Your task to perform on an android device: Toggle the flashlight Image 0: 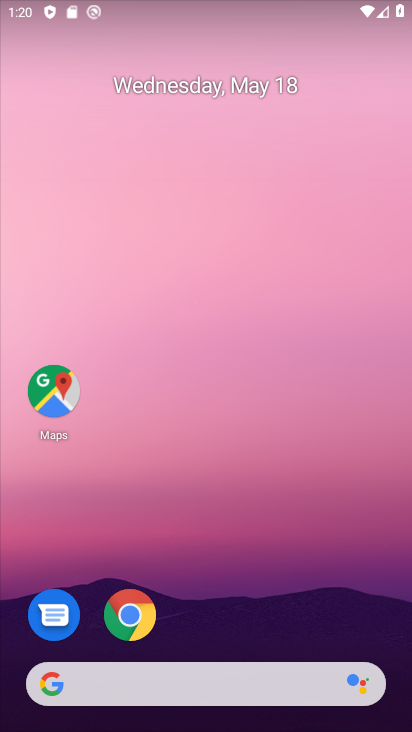
Step 0: drag from (128, 245) to (149, 450)
Your task to perform on an android device: Toggle the flashlight Image 1: 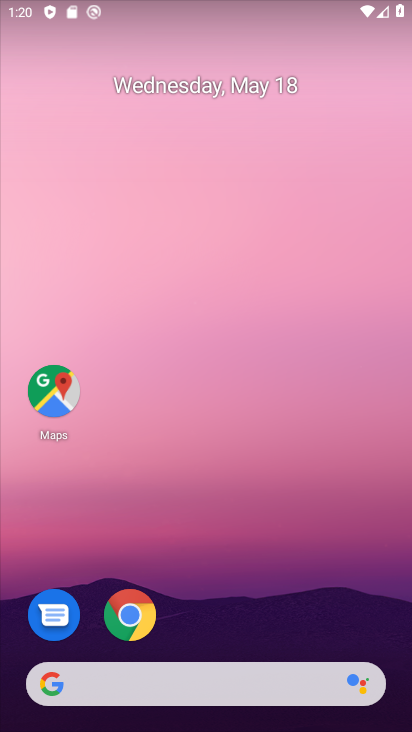
Step 1: task complete